Your task to perform on an android device: check android version Image 0: 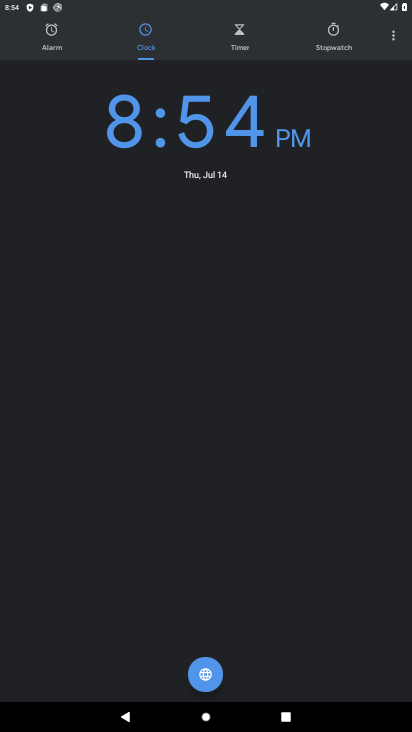
Step 0: press home button
Your task to perform on an android device: check android version Image 1: 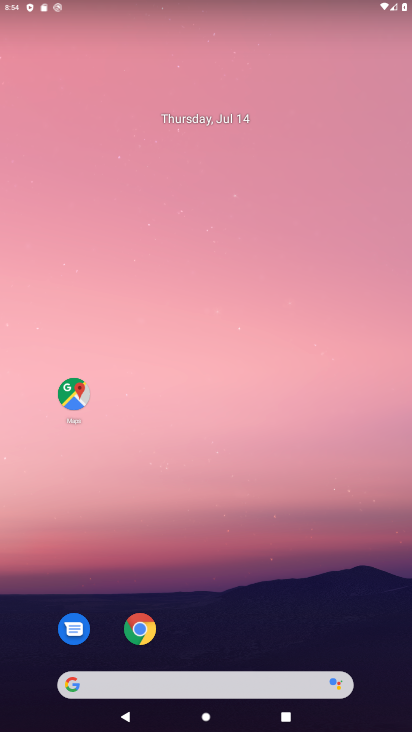
Step 1: drag from (257, 618) to (271, 156)
Your task to perform on an android device: check android version Image 2: 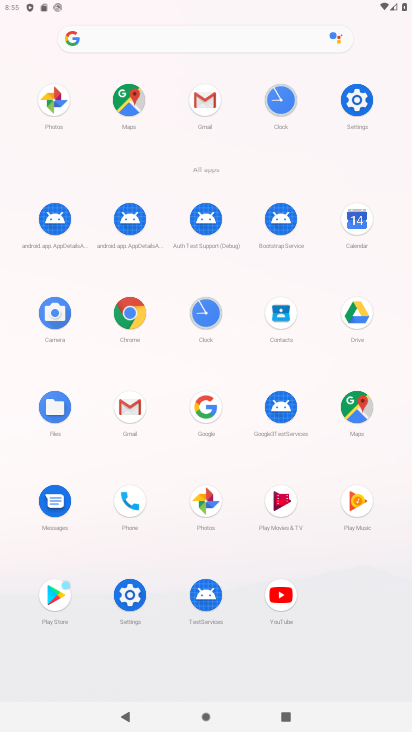
Step 2: click (360, 96)
Your task to perform on an android device: check android version Image 3: 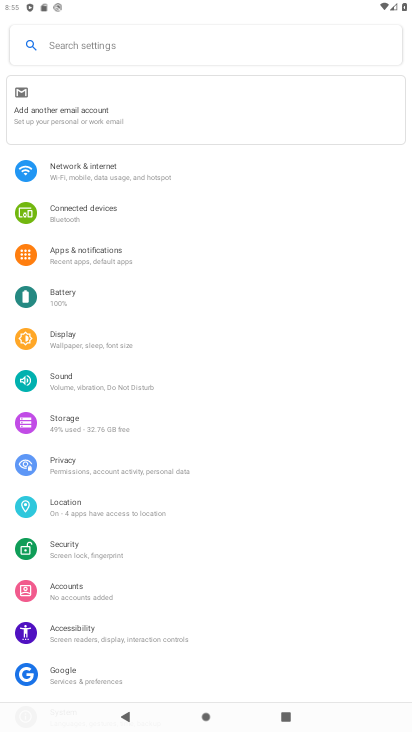
Step 3: drag from (174, 604) to (254, 194)
Your task to perform on an android device: check android version Image 4: 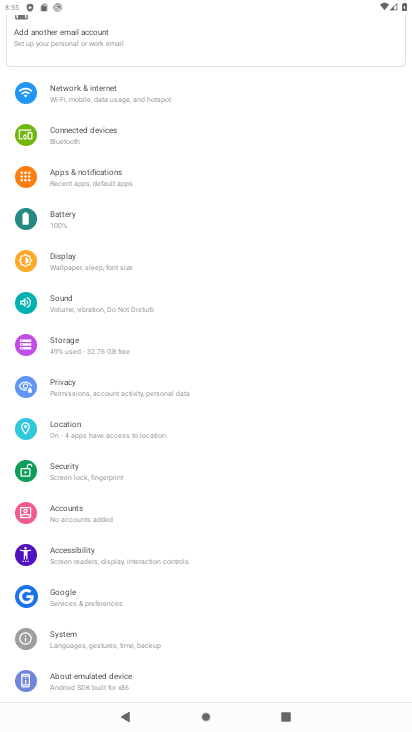
Step 4: drag from (168, 606) to (220, 40)
Your task to perform on an android device: check android version Image 5: 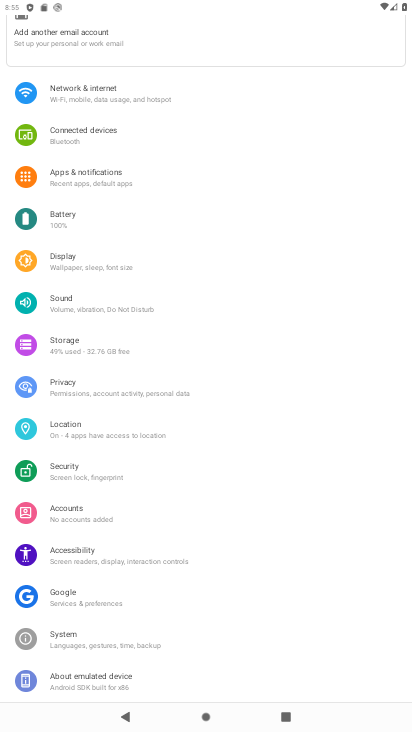
Step 5: click (120, 686)
Your task to perform on an android device: check android version Image 6: 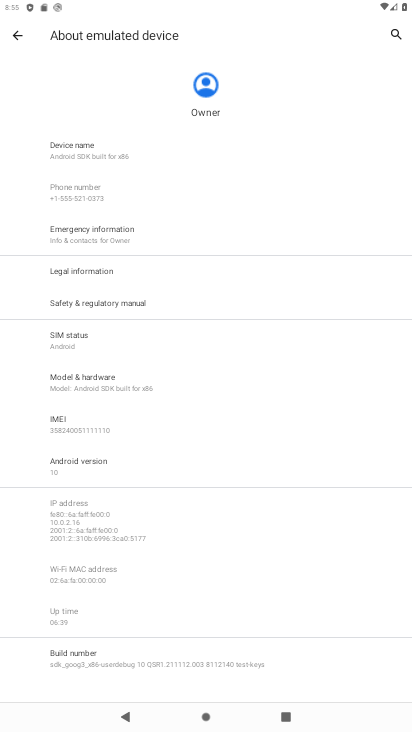
Step 6: drag from (159, 639) to (187, 196)
Your task to perform on an android device: check android version Image 7: 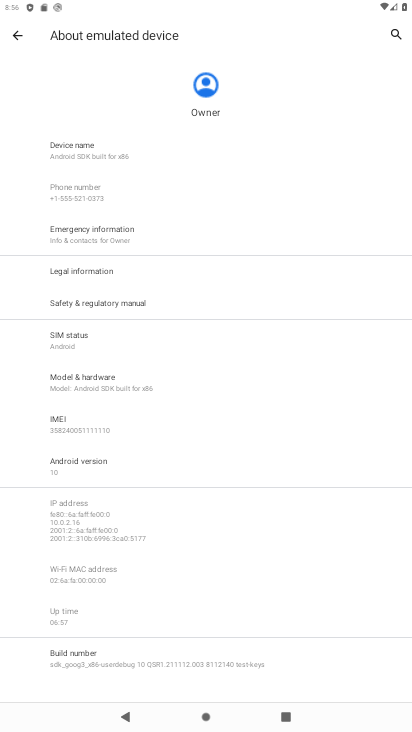
Step 7: drag from (176, 627) to (229, 170)
Your task to perform on an android device: check android version Image 8: 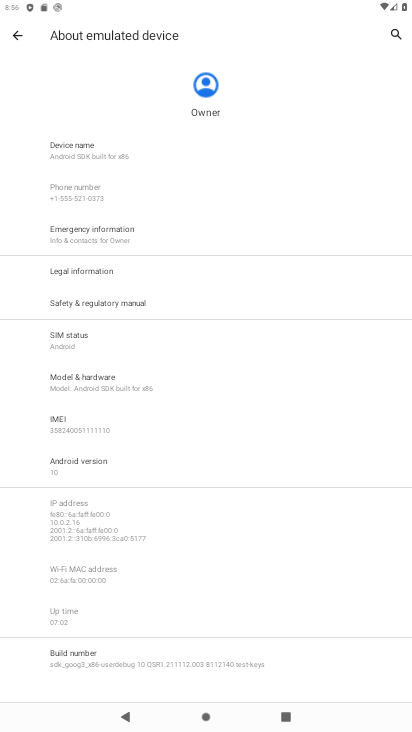
Step 8: click (113, 462)
Your task to perform on an android device: check android version Image 9: 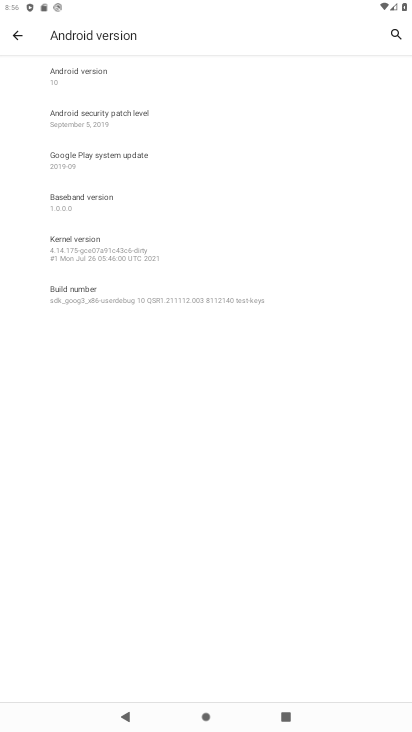
Step 9: task complete